Your task to perform on an android device: turn vacation reply on in the gmail app Image 0: 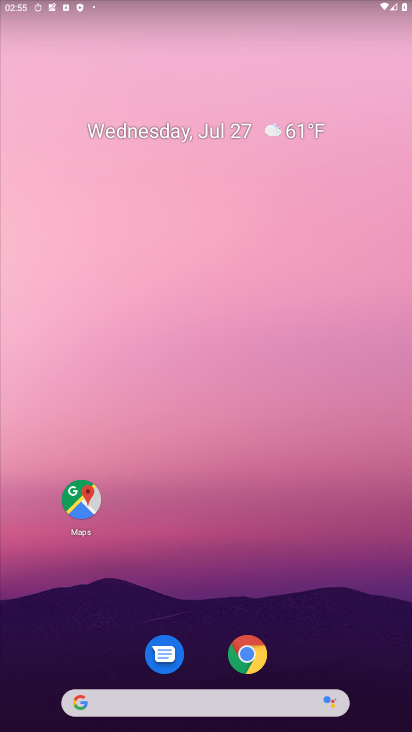
Step 0: drag from (187, 710) to (172, 17)
Your task to perform on an android device: turn vacation reply on in the gmail app Image 1: 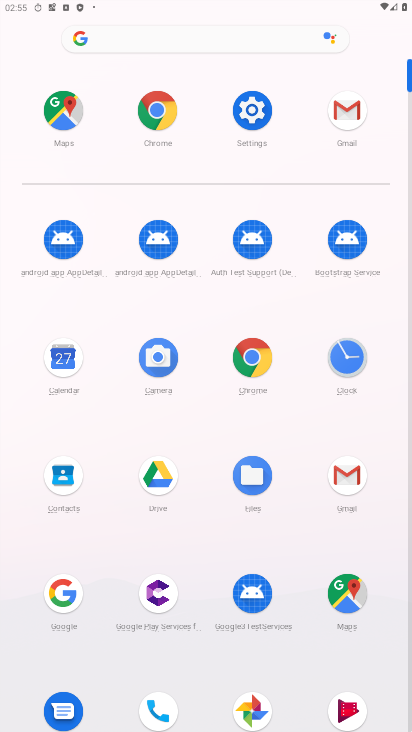
Step 1: click (338, 464)
Your task to perform on an android device: turn vacation reply on in the gmail app Image 2: 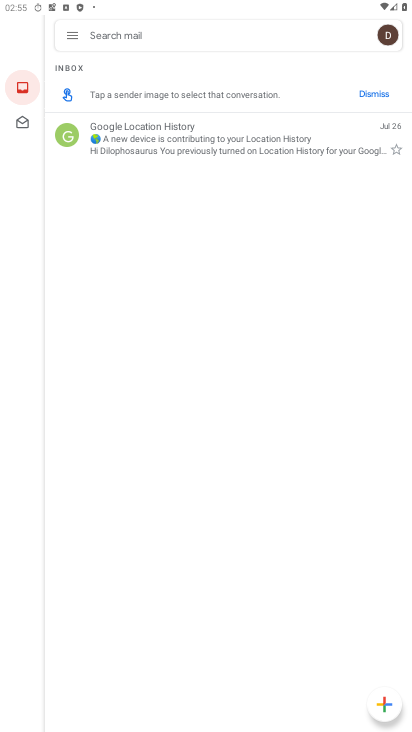
Step 2: click (79, 36)
Your task to perform on an android device: turn vacation reply on in the gmail app Image 3: 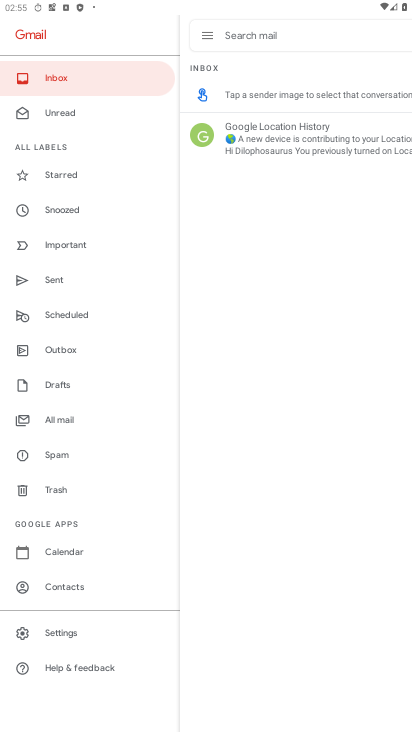
Step 3: click (49, 631)
Your task to perform on an android device: turn vacation reply on in the gmail app Image 4: 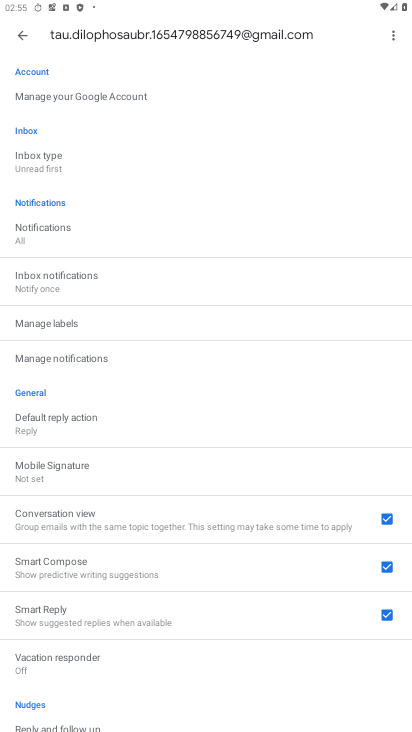
Step 4: click (93, 661)
Your task to perform on an android device: turn vacation reply on in the gmail app Image 5: 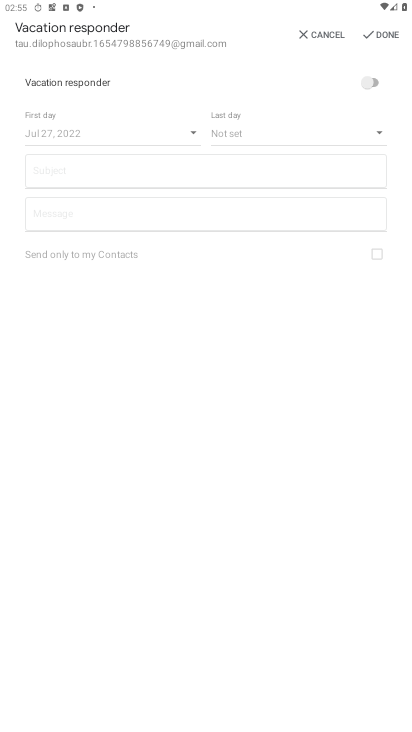
Step 5: click (376, 79)
Your task to perform on an android device: turn vacation reply on in the gmail app Image 6: 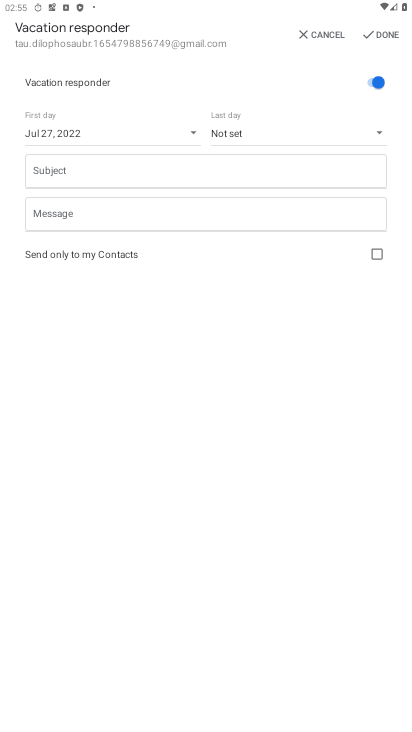
Step 6: click (380, 37)
Your task to perform on an android device: turn vacation reply on in the gmail app Image 7: 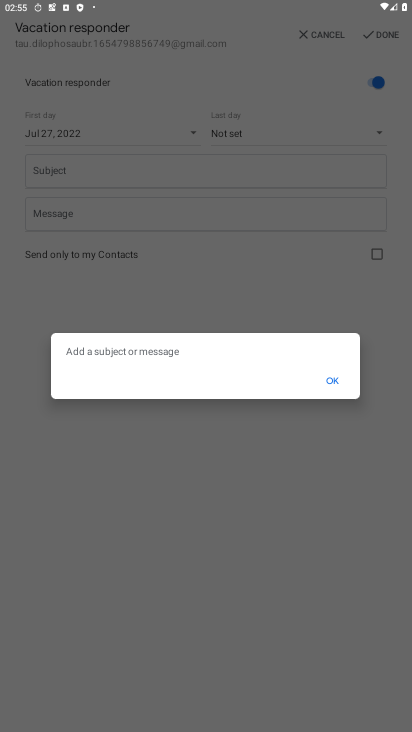
Step 7: task complete